Your task to perform on an android device: turn off notifications settings in the gmail app Image 0: 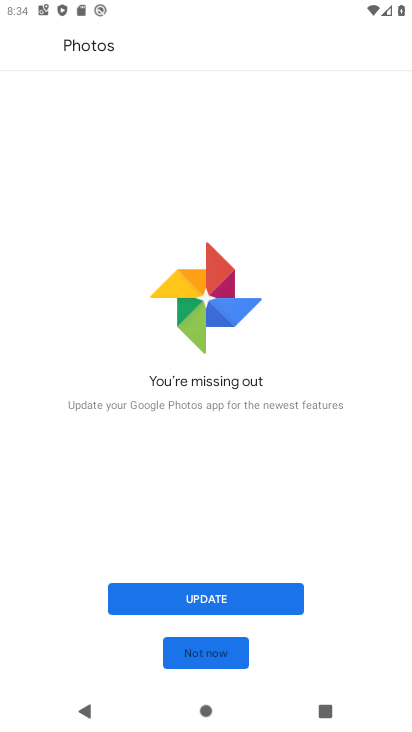
Step 0: press home button
Your task to perform on an android device: turn off notifications settings in the gmail app Image 1: 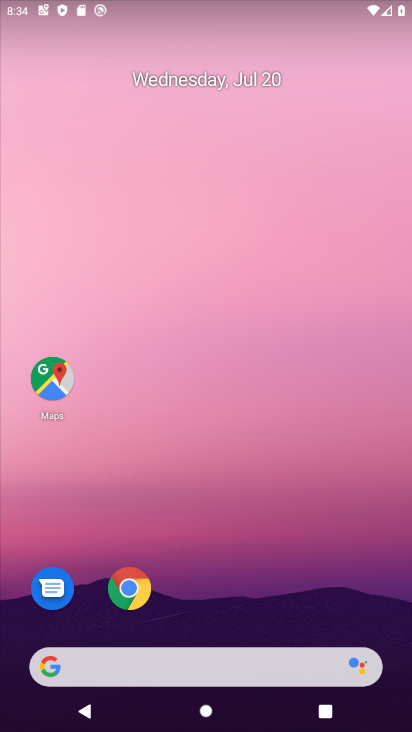
Step 1: drag from (178, 593) to (202, 75)
Your task to perform on an android device: turn off notifications settings in the gmail app Image 2: 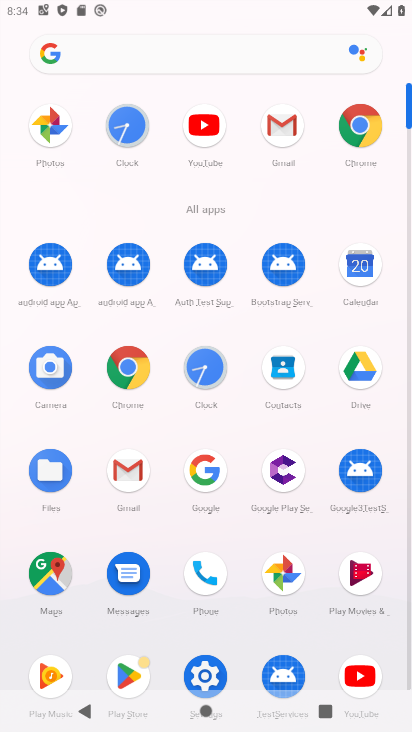
Step 2: click (193, 681)
Your task to perform on an android device: turn off notifications settings in the gmail app Image 3: 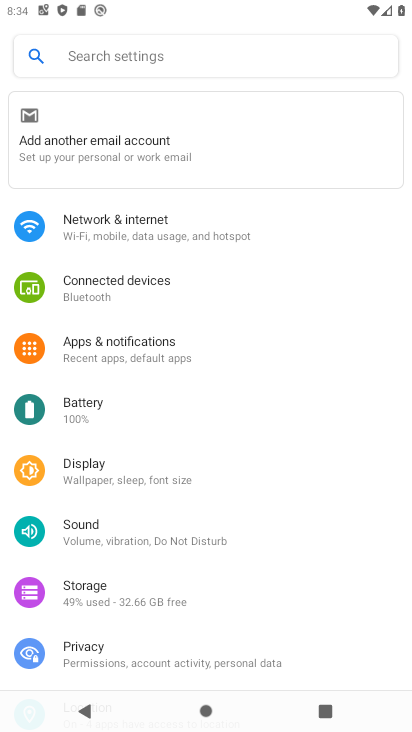
Step 3: click (141, 346)
Your task to perform on an android device: turn off notifications settings in the gmail app Image 4: 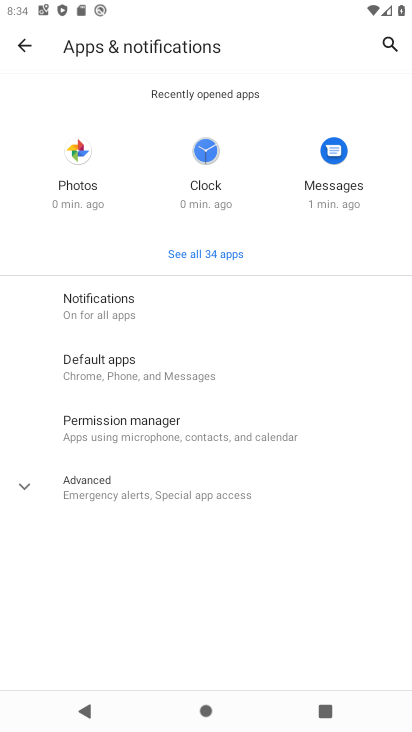
Step 4: click (213, 239)
Your task to perform on an android device: turn off notifications settings in the gmail app Image 5: 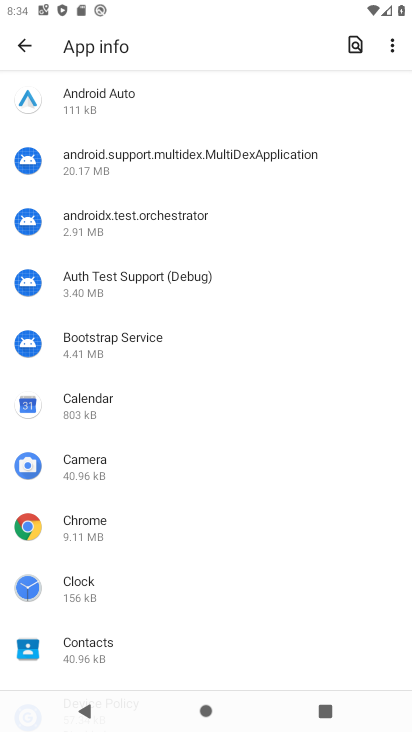
Step 5: drag from (254, 649) to (254, 121)
Your task to perform on an android device: turn off notifications settings in the gmail app Image 6: 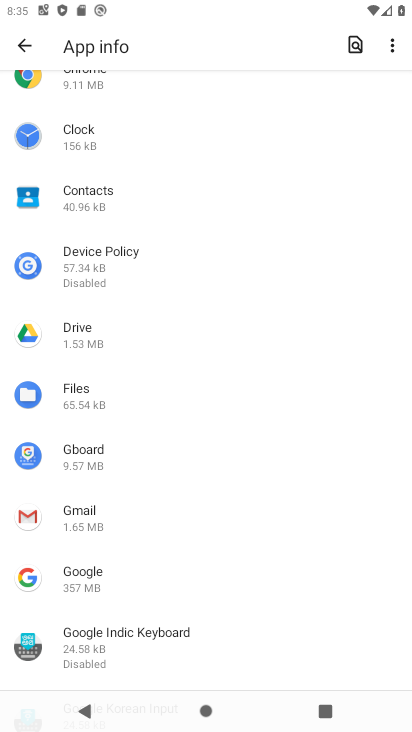
Step 6: click (110, 509)
Your task to perform on an android device: turn off notifications settings in the gmail app Image 7: 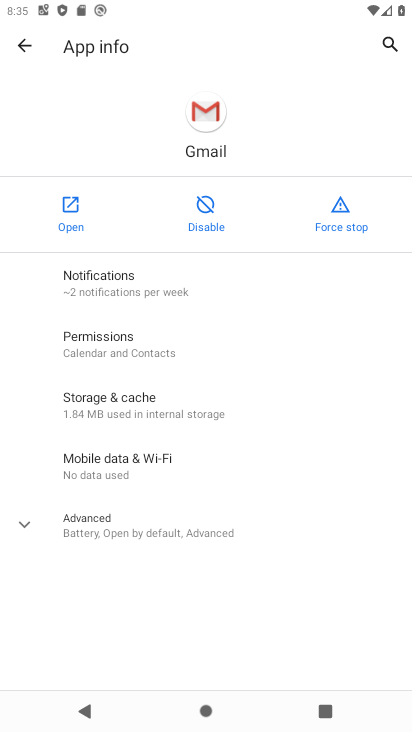
Step 7: click (168, 304)
Your task to perform on an android device: turn off notifications settings in the gmail app Image 8: 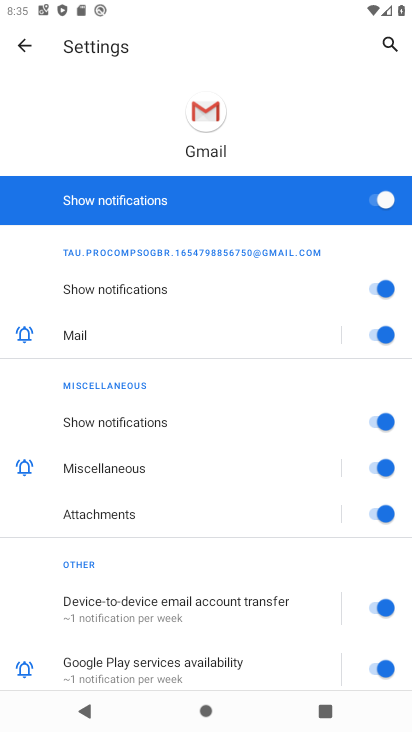
Step 8: click (391, 207)
Your task to perform on an android device: turn off notifications settings in the gmail app Image 9: 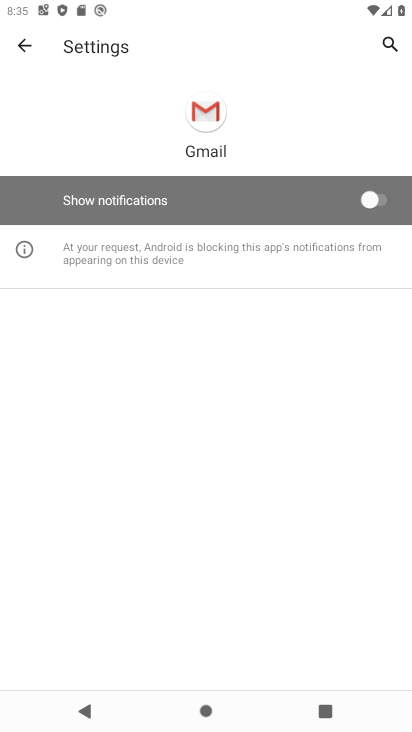
Step 9: task complete